Your task to perform on an android device: Go to Android settings Image 0: 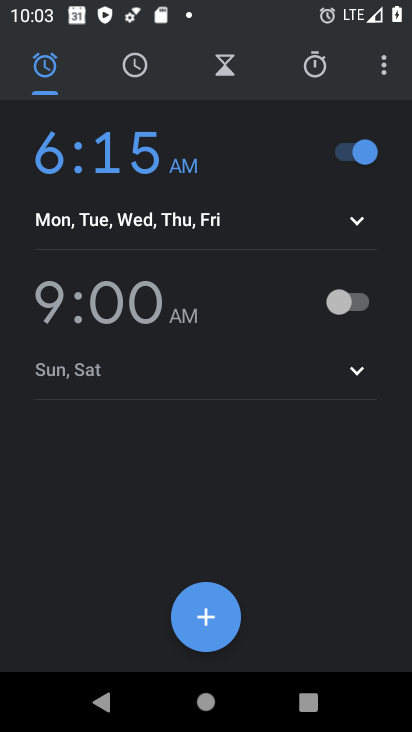
Step 0: press home button
Your task to perform on an android device: Go to Android settings Image 1: 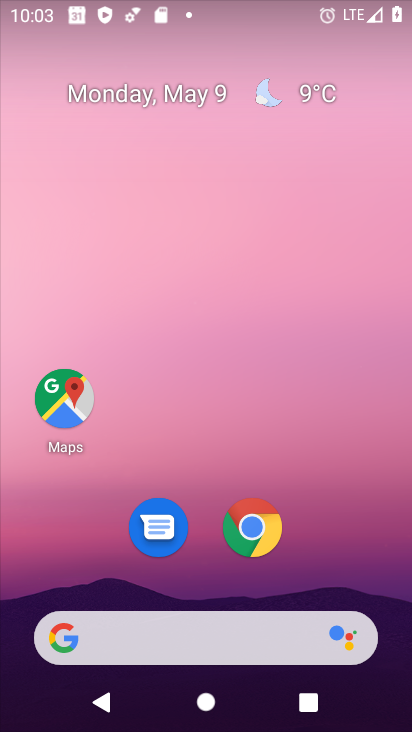
Step 1: drag from (27, 515) to (201, 151)
Your task to perform on an android device: Go to Android settings Image 2: 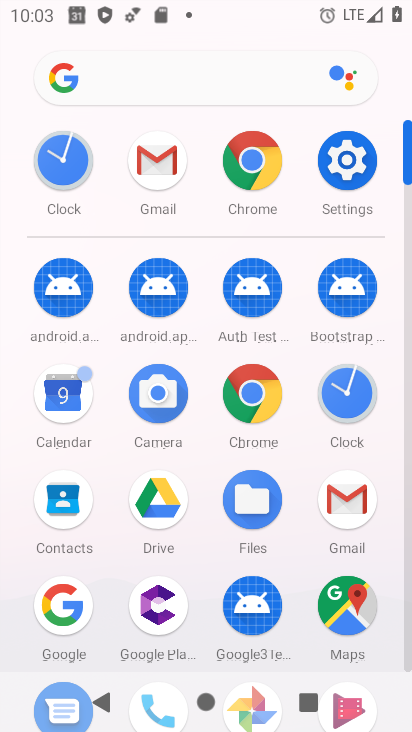
Step 2: click (347, 162)
Your task to perform on an android device: Go to Android settings Image 3: 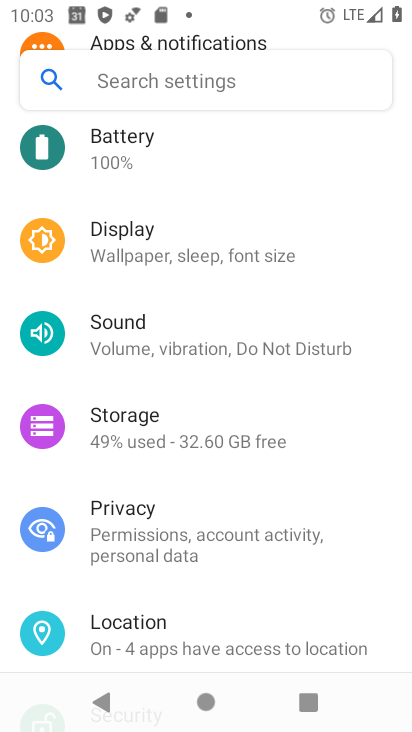
Step 3: drag from (323, 554) to (375, 159)
Your task to perform on an android device: Go to Android settings Image 4: 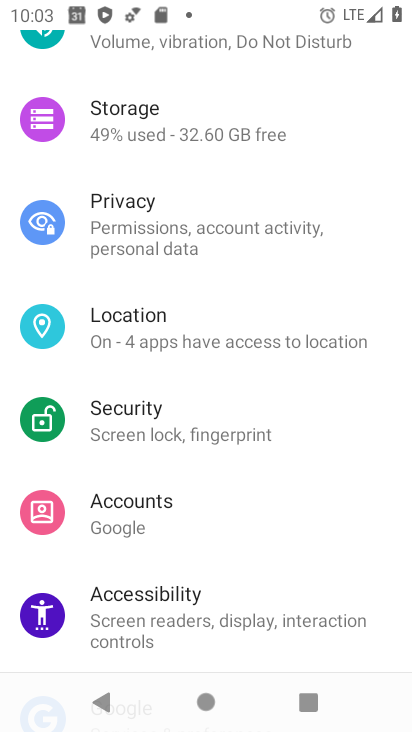
Step 4: drag from (298, 542) to (292, 385)
Your task to perform on an android device: Go to Android settings Image 5: 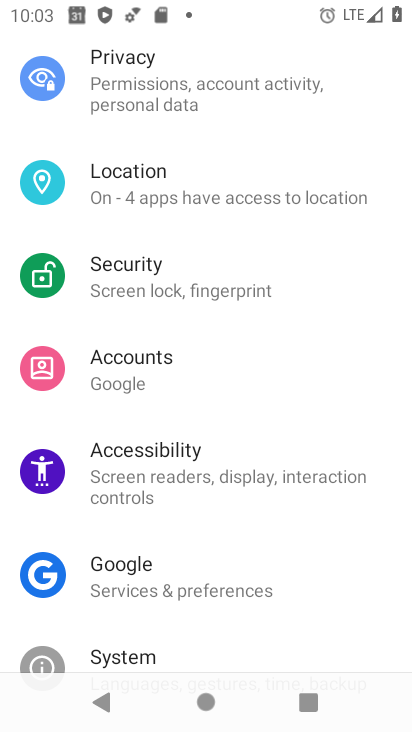
Step 5: drag from (264, 613) to (296, 278)
Your task to perform on an android device: Go to Android settings Image 6: 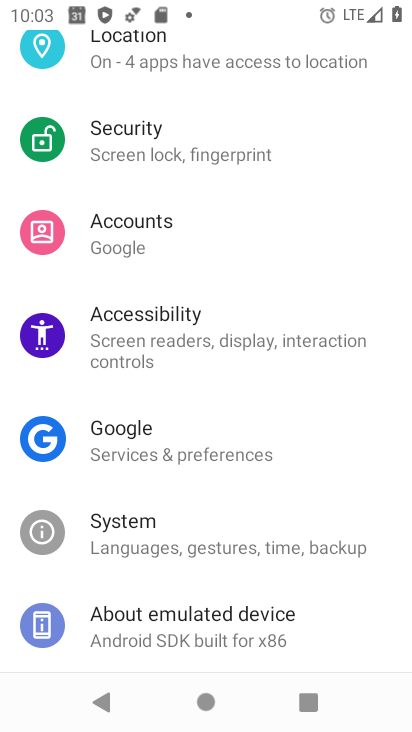
Step 6: click (198, 619)
Your task to perform on an android device: Go to Android settings Image 7: 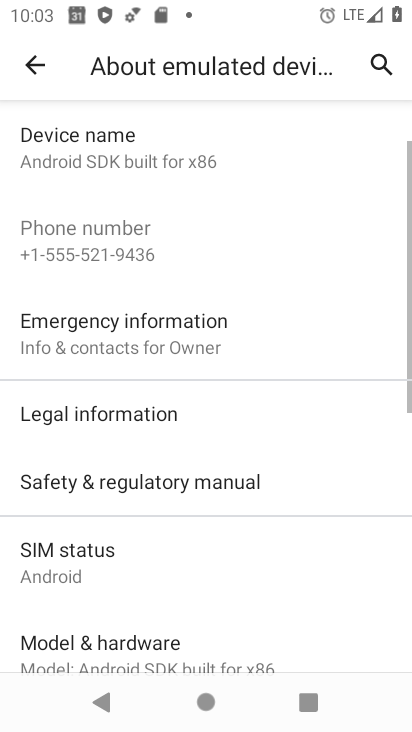
Step 7: task complete